Your task to perform on an android device: Go to Google Image 0: 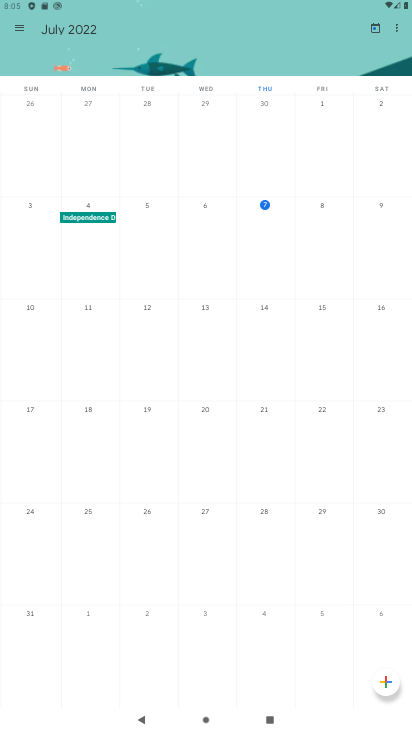
Step 0: press home button
Your task to perform on an android device: Go to Google Image 1: 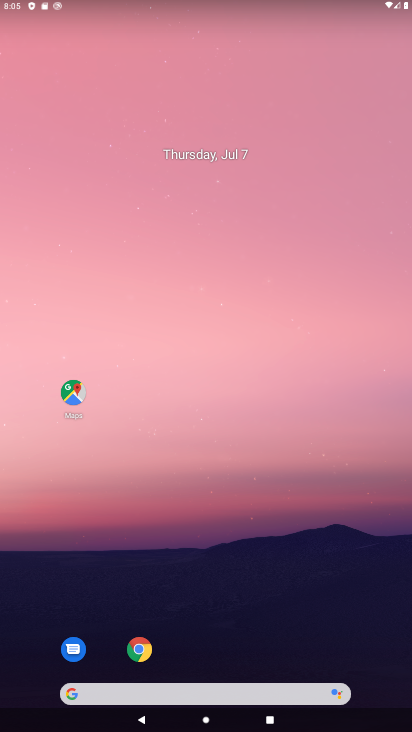
Step 1: click (70, 686)
Your task to perform on an android device: Go to Google Image 2: 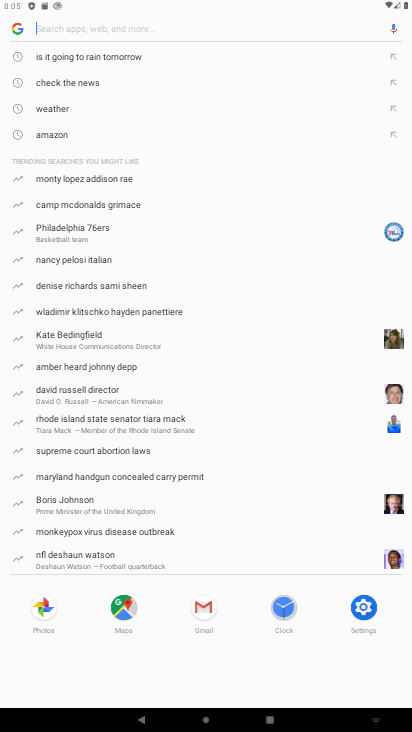
Step 2: task complete